Your task to perform on an android device: Check the weather Image 0: 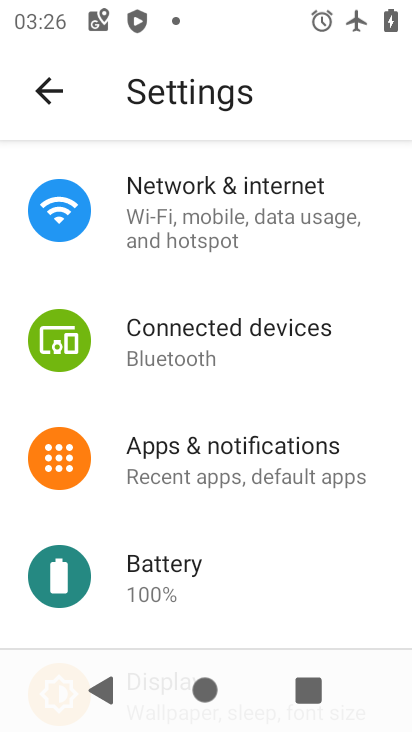
Step 0: press home button
Your task to perform on an android device: Check the weather Image 1: 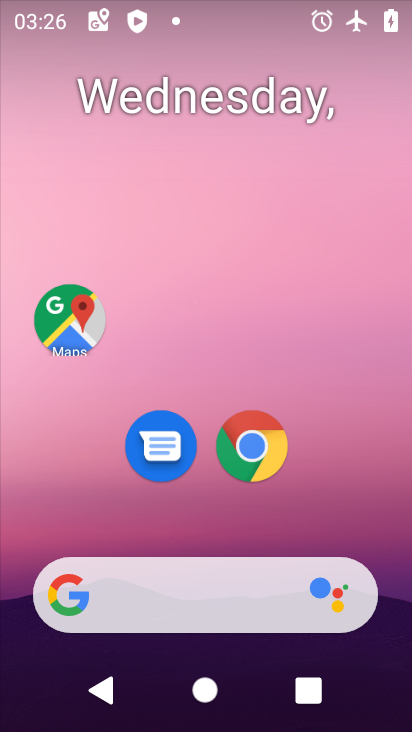
Step 1: drag from (213, 532) to (251, 206)
Your task to perform on an android device: Check the weather Image 2: 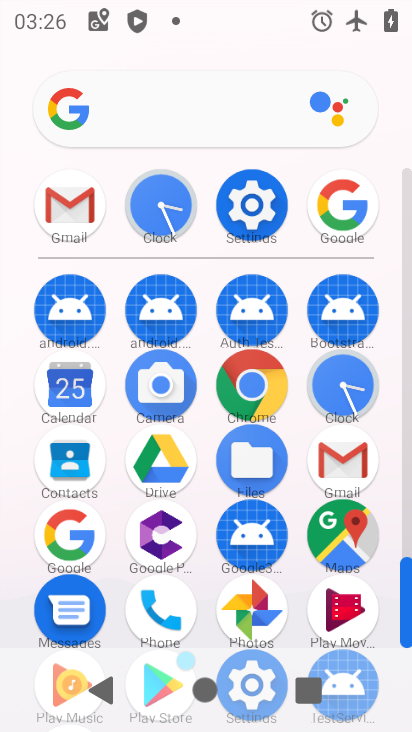
Step 2: click (71, 538)
Your task to perform on an android device: Check the weather Image 3: 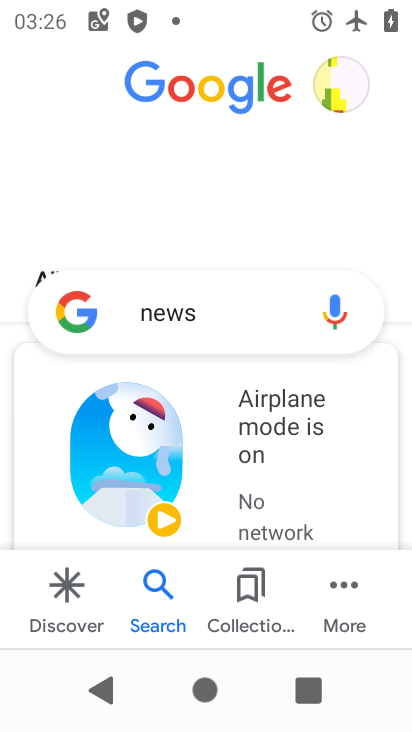
Step 3: click (195, 309)
Your task to perform on an android device: Check the weather Image 4: 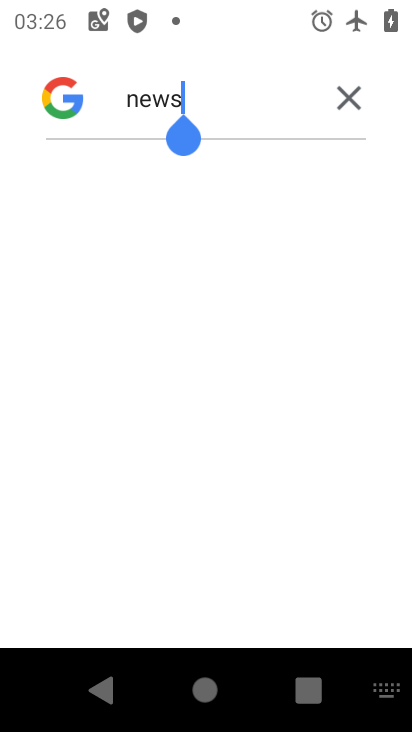
Step 4: click (357, 96)
Your task to perform on an android device: Check the weather Image 5: 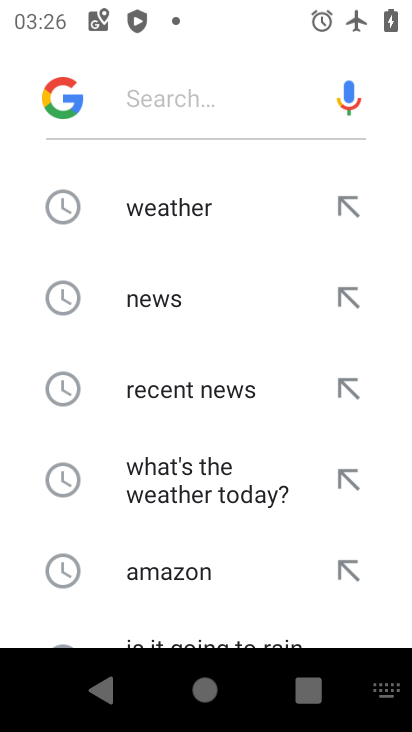
Step 5: click (185, 222)
Your task to perform on an android device: Check the weather Image 6: 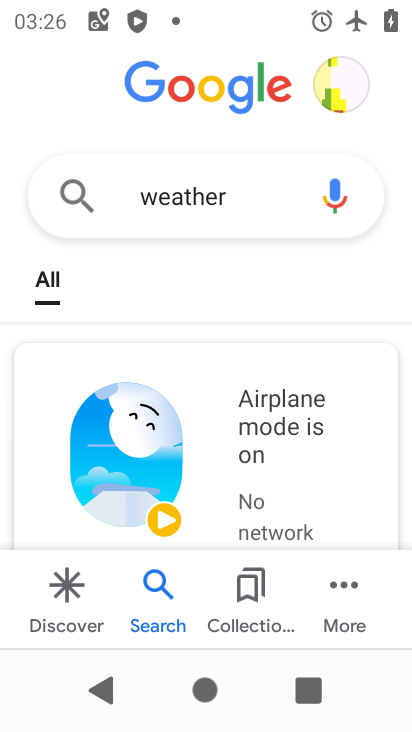
Step 6: task complete